Your task to perform on an android device: Open internet settings Image 0: 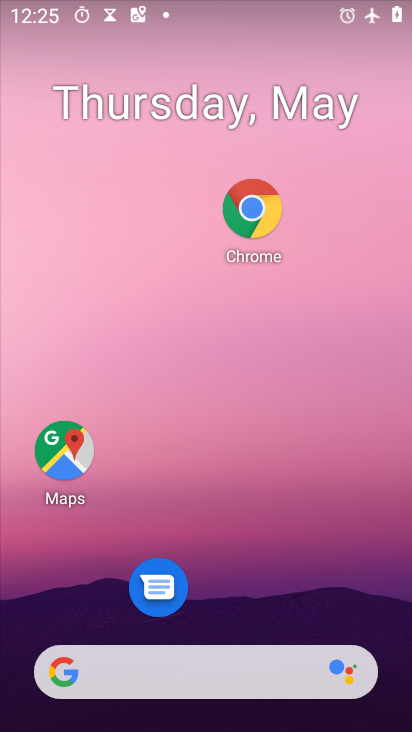
Step 0: drag from (215, 308) to (208, 0)
Your task to perform on an android device: Open internet settings Image 1: 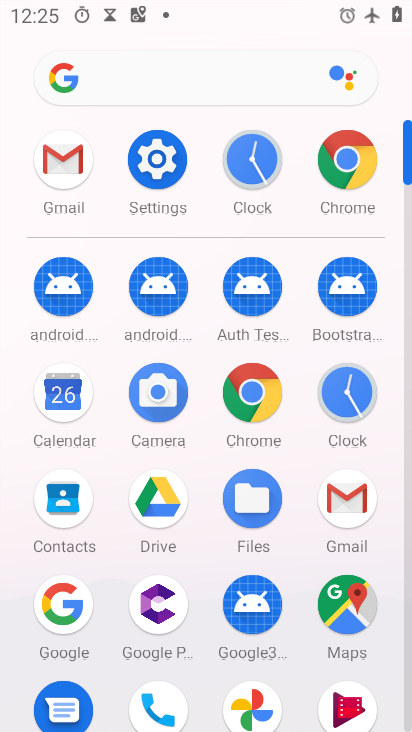
Step 1: click (169, 165)
Your task to perform on an android device: Open internet settings Image 2: 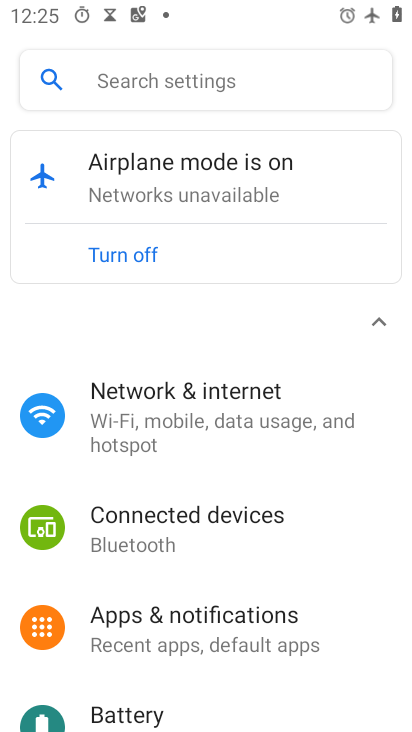
Step 2: click (144, 403)
Your task to perform on an android device: Open internet settings Image 3: 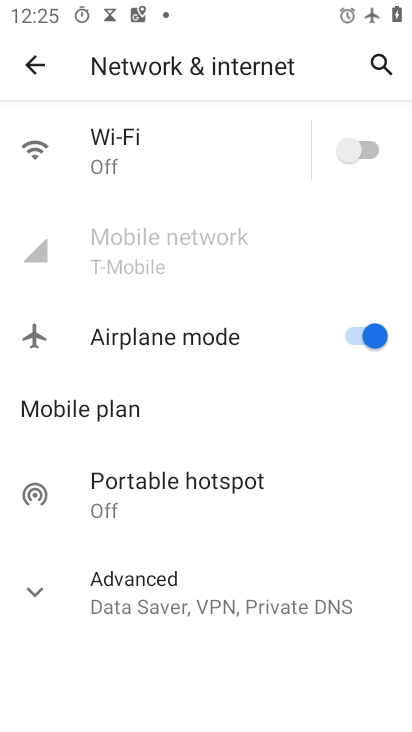
Step 3: task complete